Your task to perform on an android device: turn pop-ups off in chrome Image 0: 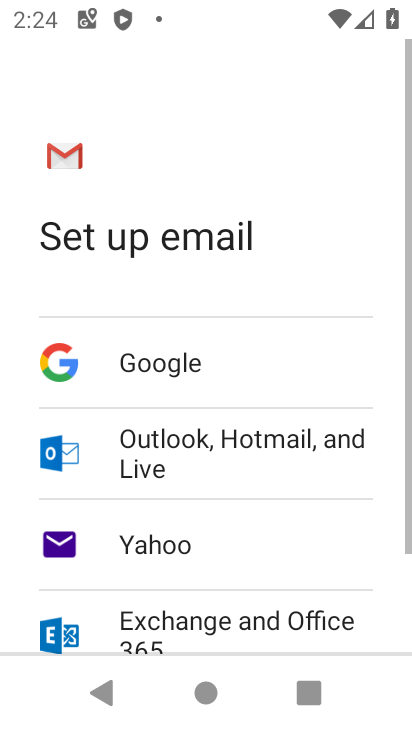
Step 0: press home button
Your task to perform on an android device: turn pop-ups off in chrome Image 1: 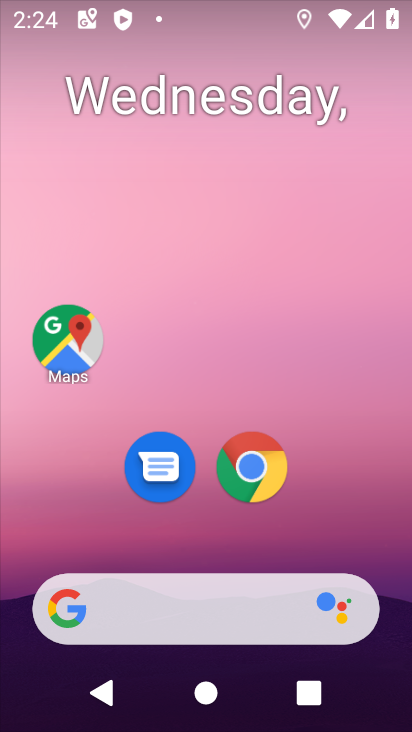
Step 1: drag from (330, 480) to (190, 161)
Your task to perform on an android device: turn pop-ups off in chrome Image 2: 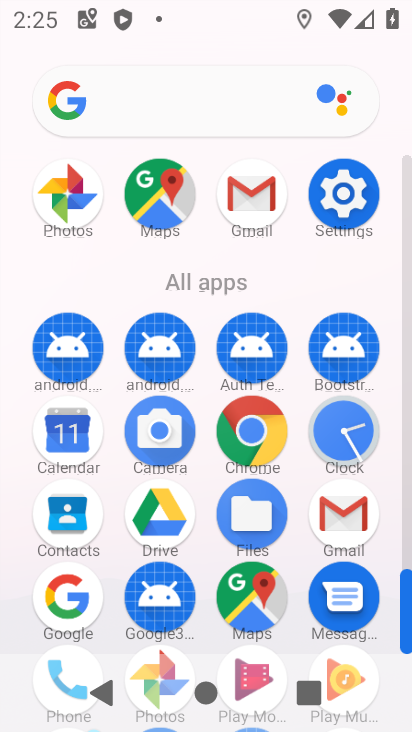
Step 2: click (247, 446)
Your task to perform on an android device: turn pop-ups off in chrome Image 3: 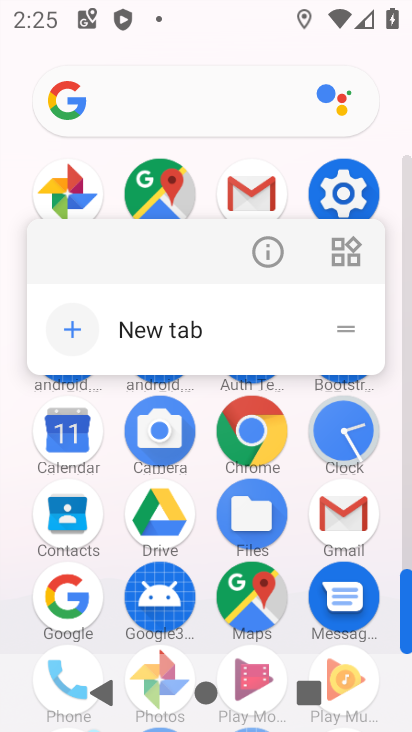
Step 3: click (262, 434)
Your task to perform on an android device: turn pop-ups off in chrome Image 4: 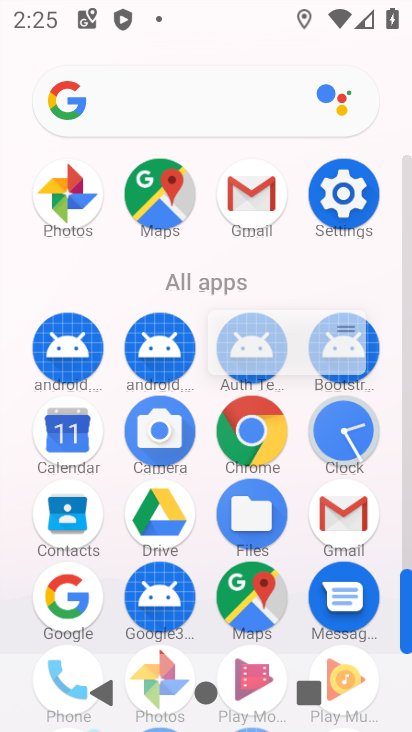
Step 4: click (253, 431)
Your task to perform on an android device: turn pop-ups off in chrome Image 5: 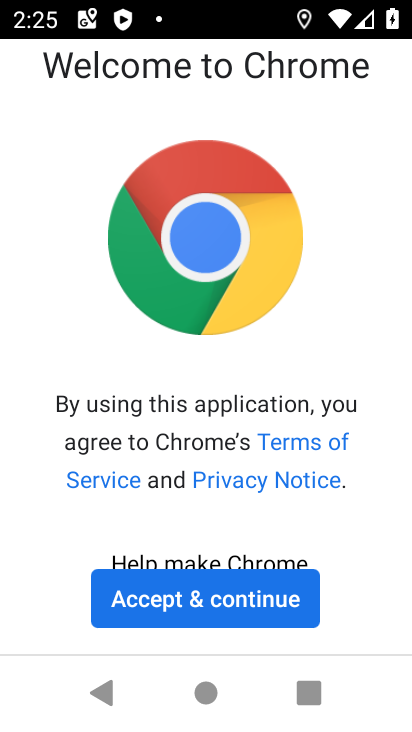
Step 5: click (238, 593)
Your task to perform on an android device: turn pop-ups off in chrome Image 6: 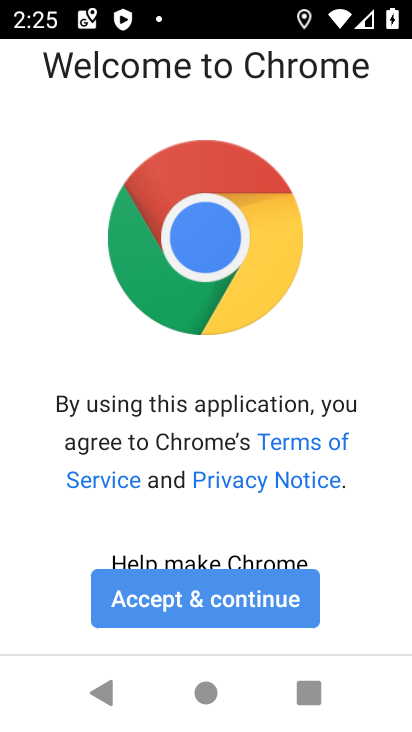
Step 6: click (238, 593)
Your task to perform on an android device: turn pop-ups off in chrome Image 7: 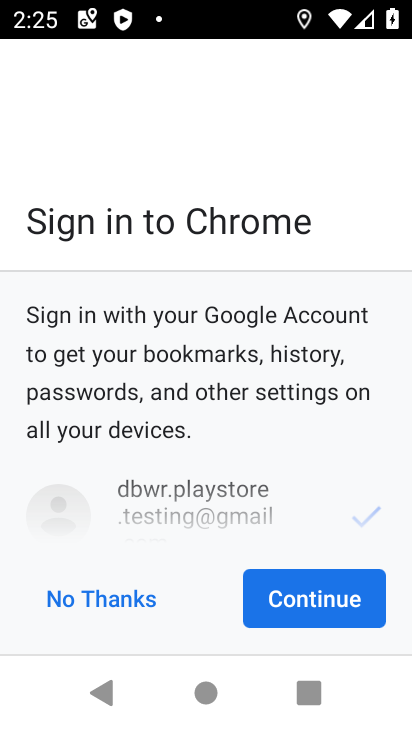
Step 7: click (309, 597)
Your task to perform on an android device: turn pop-ups off in chrome Image 8: 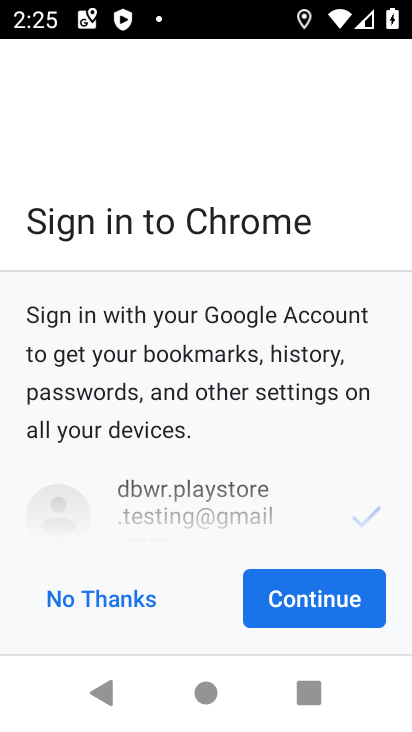
Step 8: click (310, 598)
Your task to perform on an android device: turn pop-ups off in chrome Image 9: 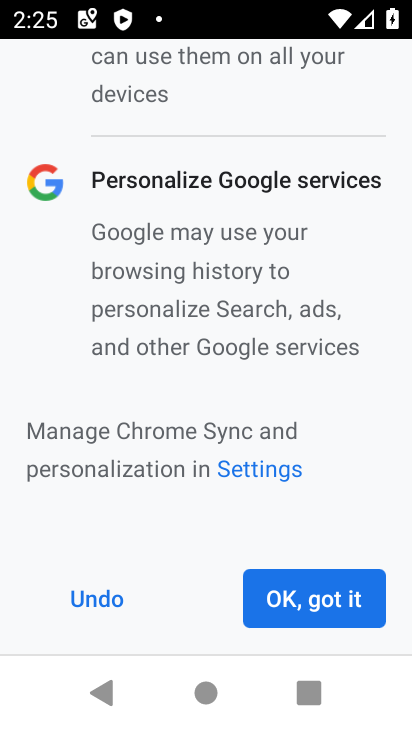
Step 9: click (308, 601)
Your task to perform on an android device: turn pop-ups off in chrome Image 10: 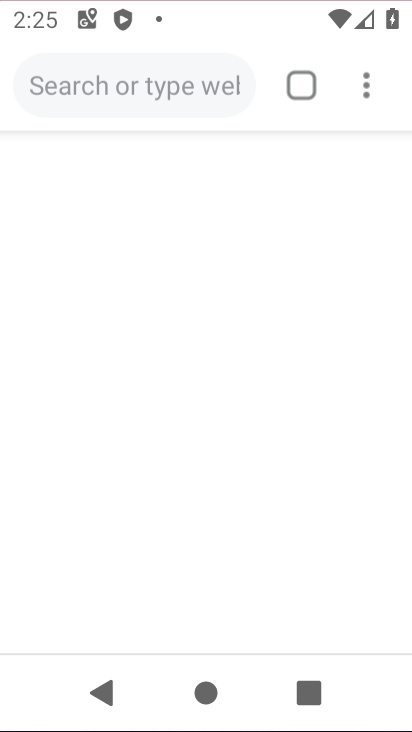
Step 10: click (308, 600)
Your task to perform on an android device: turn pop-ups off in chrome Image 11: 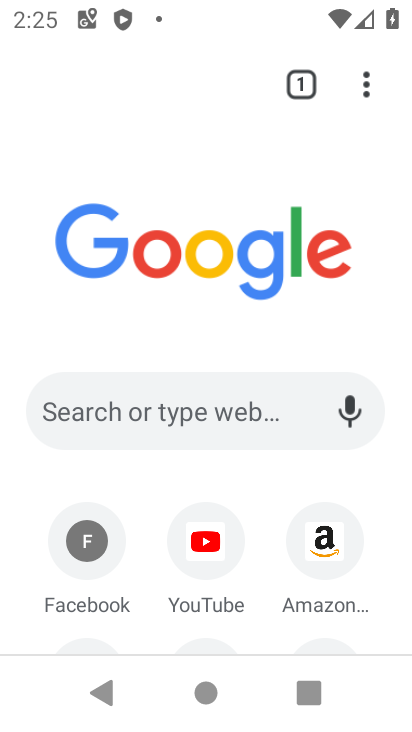
Step 11: drag from (360, 81) to (104, 511)
Your task to perform on an android device: turn pop-ups off in chrome Image 12: 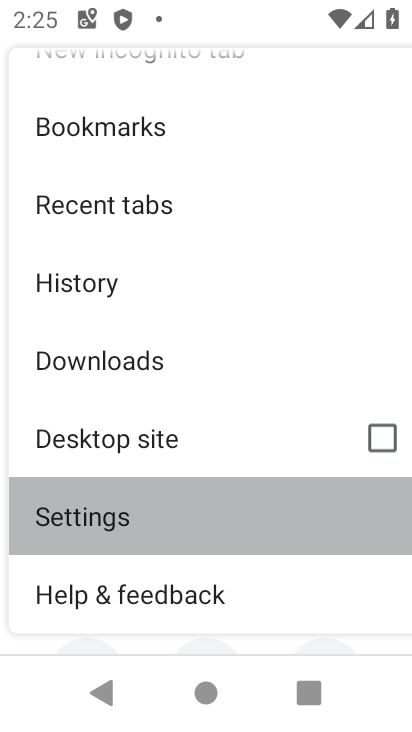
Step 12: click (103, 512)
Your task to perform on an android device: turn pop-ups off in chrome Image 13: 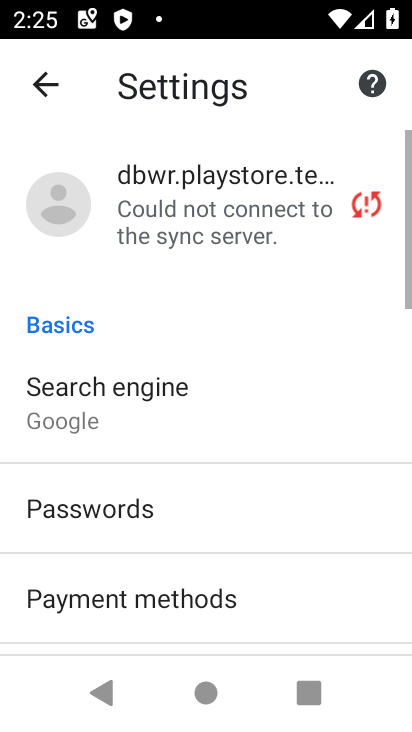
Step 13: drag from (204, 469) to (159, 227)
Your task to perform on an android device: turn pop-ups off in chrome Image 14: 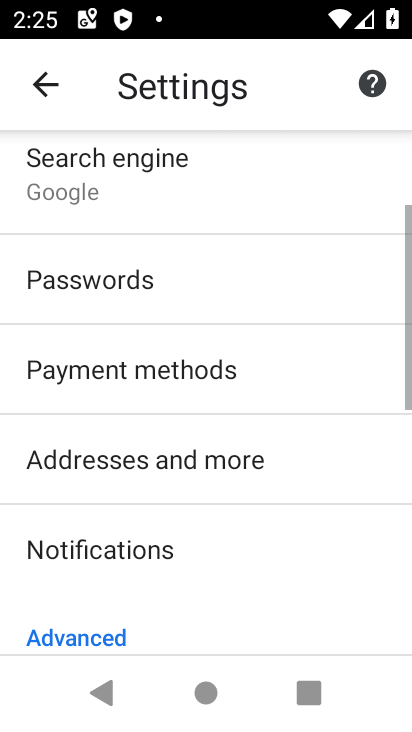
Step 14: drag from (180, 383) to (170, 172)
Your task to perform on an android device: turn pop-ups off in chrome Image 15: 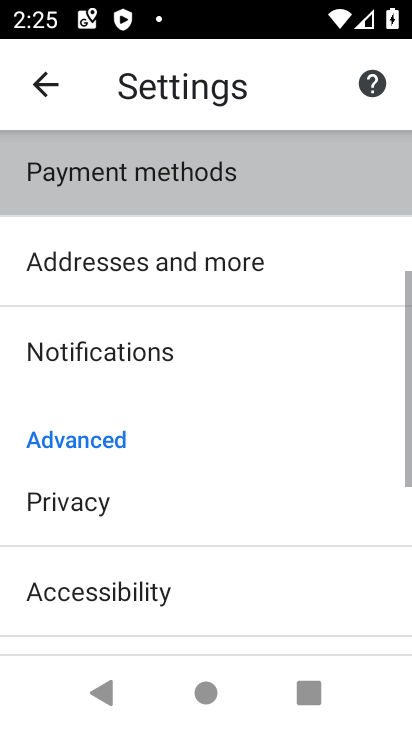
Step 15: drag from (195, 358) to (166, 157)
Your task to perform on an android device: turn pop-ups off in chrome Image 16: 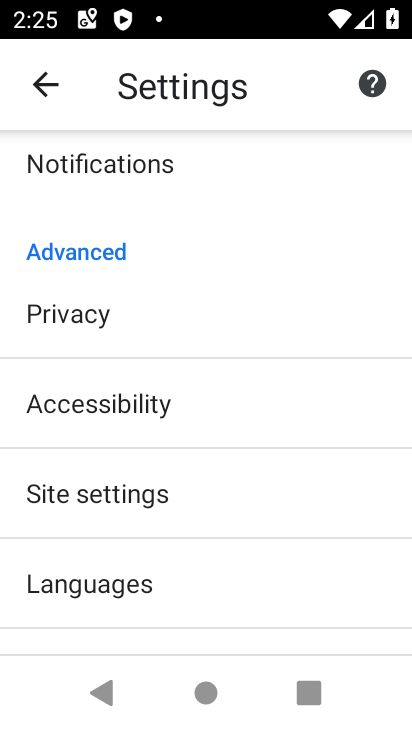
Step 16: click (72, 478)
Your task to perform on an android device: turn pop-ups off in chrome Image 17: 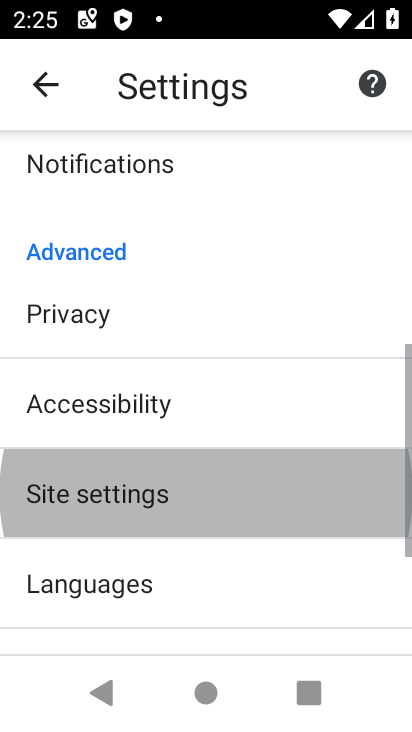
Step 17: click (75, 484)
Your task to perform on an android device: turn pop-ups off in chrome Image 18: 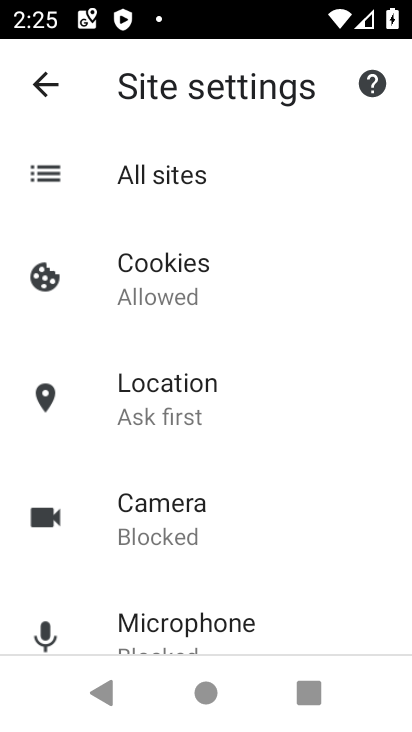
Step 18: drag from (220, 529) to (182, 242)
Your task to perform on an android device: turn pop-ups off in chrome Image 19: 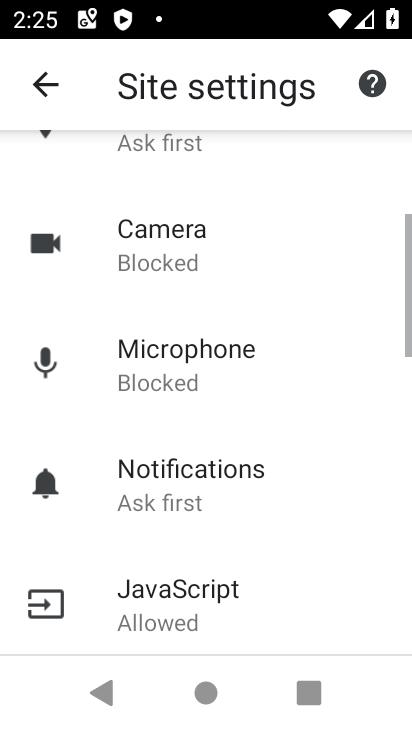
Step 19: drag from (233, 469) to (205, 298)
Your task to perform on an android device: turn pop-ups off in chrome Image 20: 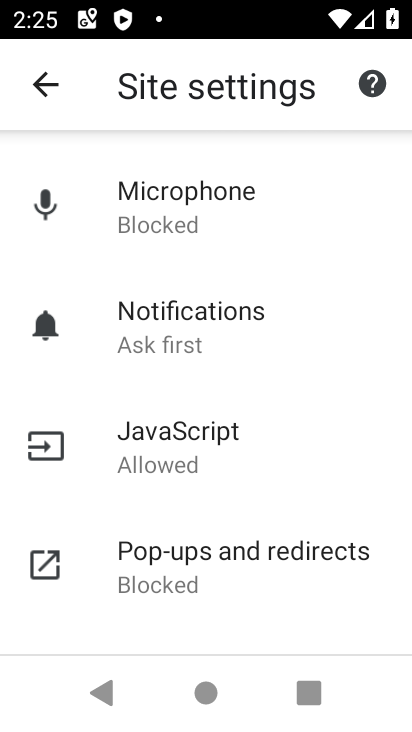
Step 20: click (162, 558)
Your task to perform on an android device: turn pop-ups off in chrome Image 21: 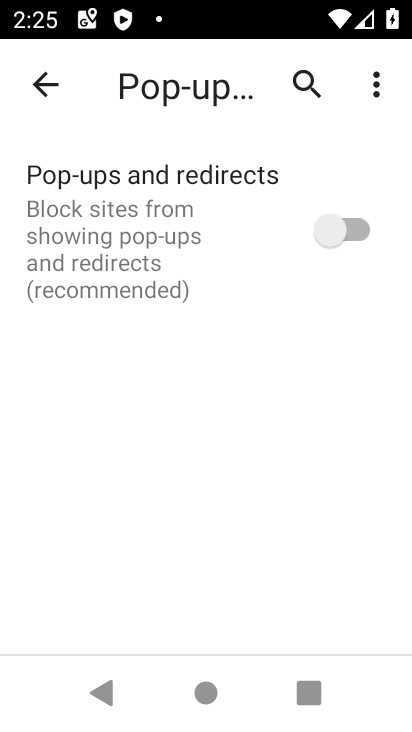
Step 21: task complete